Your task to perform on an android device: What's on my calendar today? Image 0: 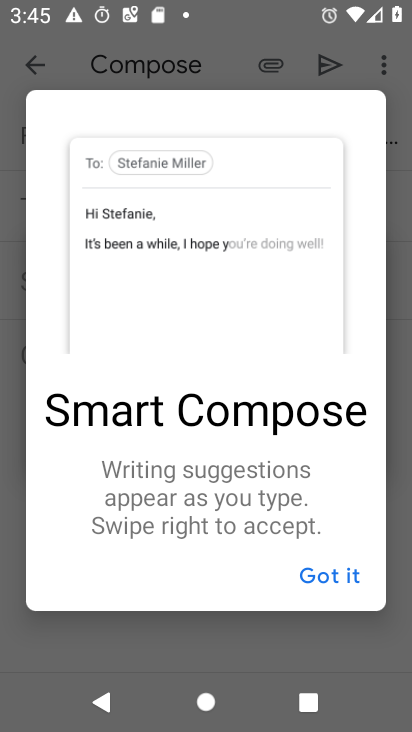
Step 0: press home button
Your task to perform on an android device: What's on my calendar today? Image 1: 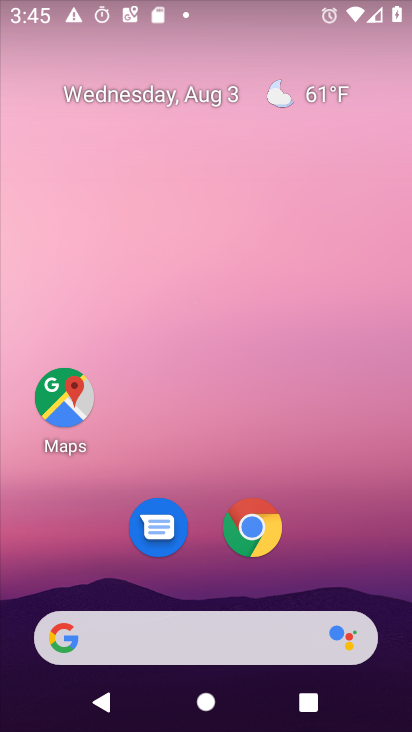
Step 1: drag from (303, 302) to (290, 135)
Your task to perform on an android device: What's on my calendar today? Image 2: 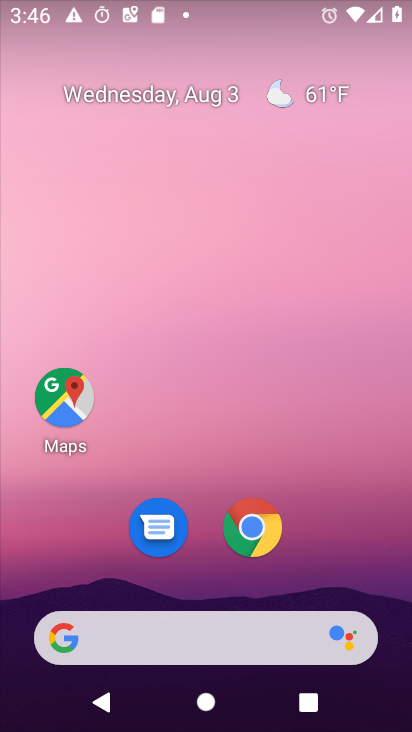
Step 2: drag from (310, 453) to (297, 143)
Your task to perform on an android device: What's on my calendar today? Image 3: 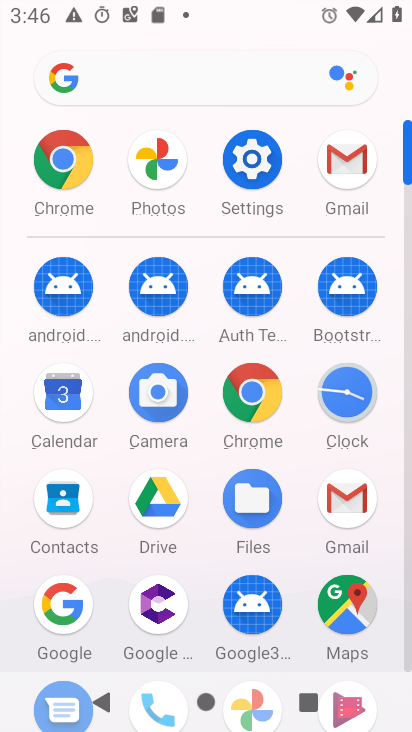
Step 3: click (60, 389)
Your task to perform on an android device: What's on my calendar today? Image 4: 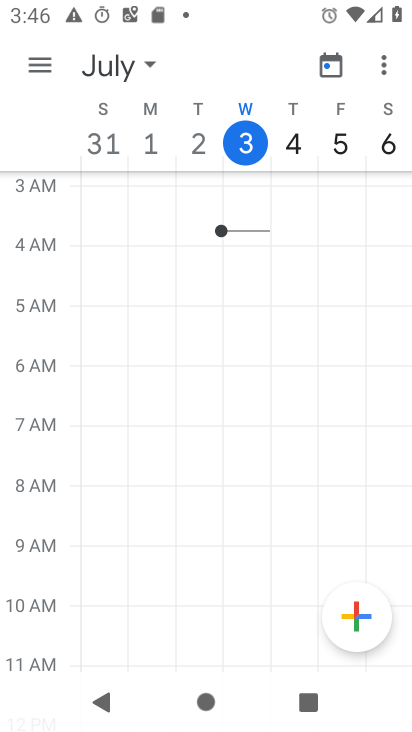
Step 4: drag from (374, 139) to (57, 138)
Your task to perform on an android device: What's on my calendar today? Image 5: 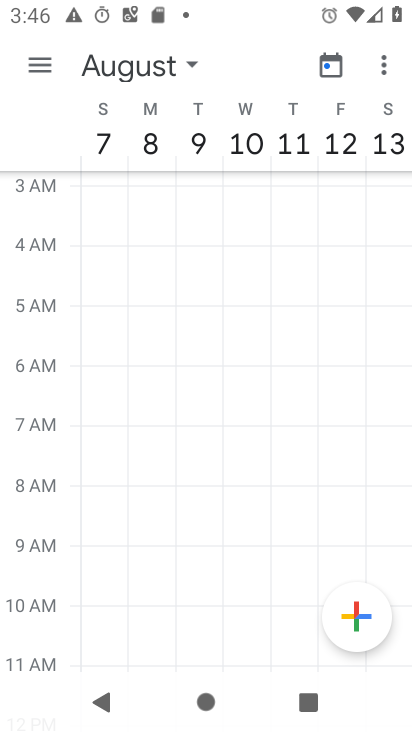
Step 5: drag from (86, 136) to (401, 120)
Your task to perform on an android device: What's on my calendar today? Image 6: 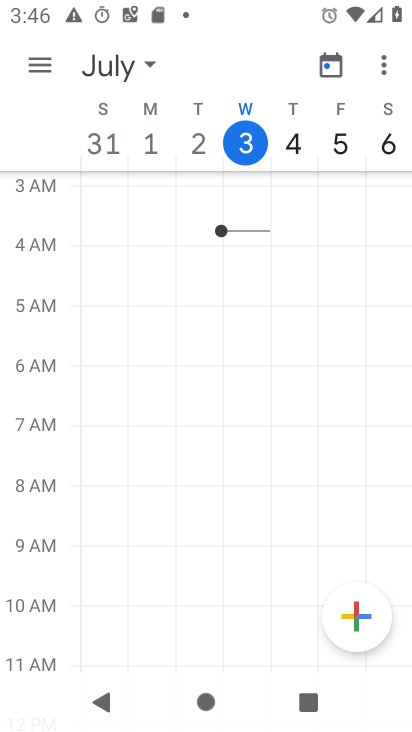
Step 6: click (259, 148)
Your task to perform on an android device: What's on my calendar today? Image 7: 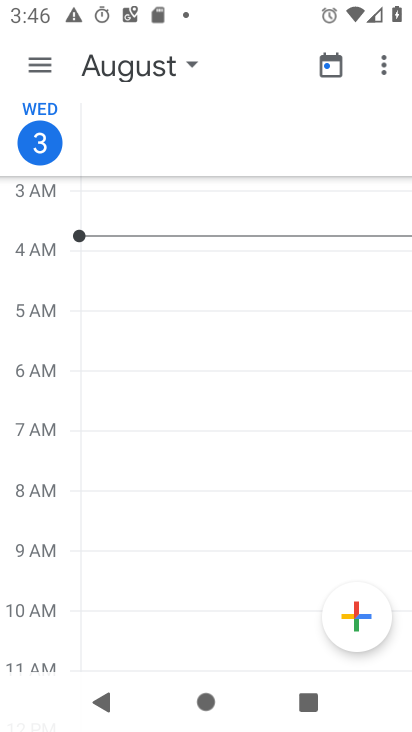
Step 7: task complete